Your task to perform on an android device: Open accessibility settings Image 0: 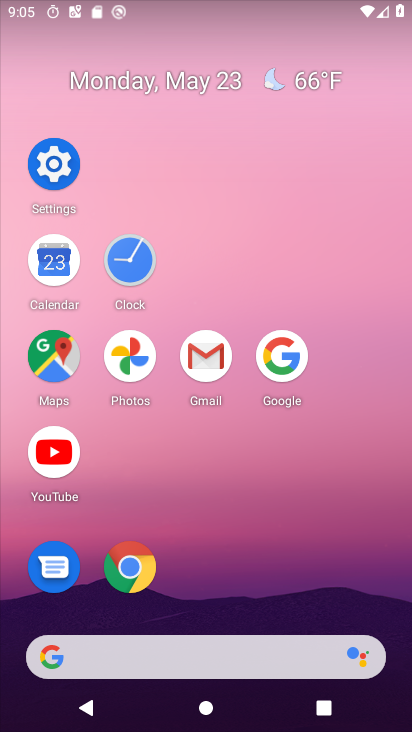
Step 0: click (60, 178)
Your task to perform on an android device: Open accessibility settings Image 1: 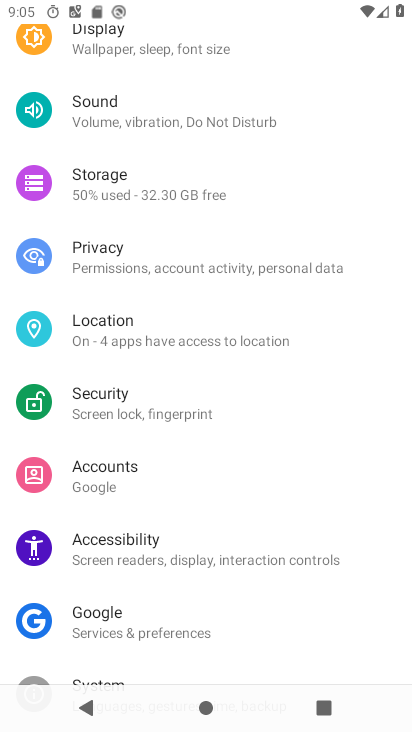
Step 1: click (167, 572)
Your task to perform on an android device: Open accessibility settings Image 2: 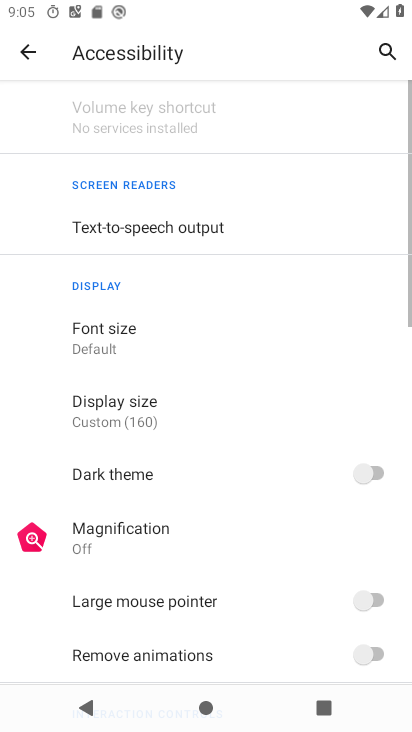
Step 2: task complete